Your task to perform on an android device: open a new tab in the chrome app Image 0: 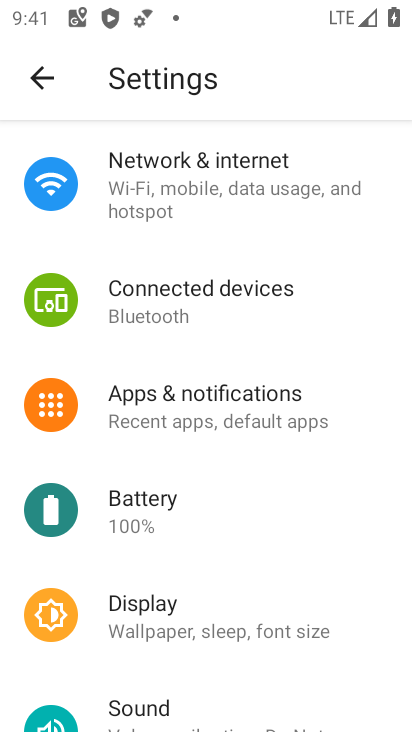
Step 0: press home button
Your task to perform on an android device: open a new tab in the chrome app Image 1: 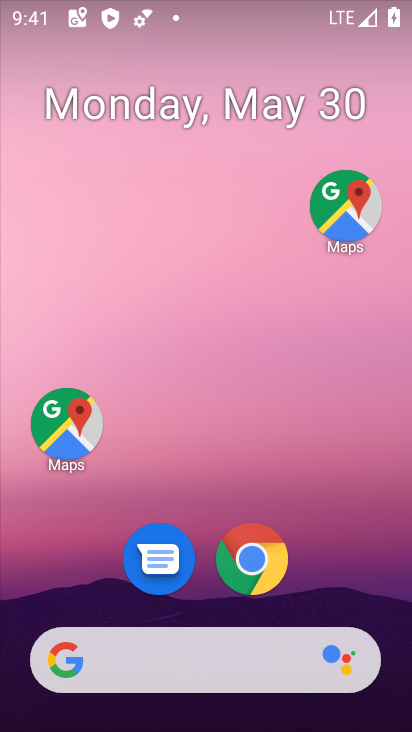
Step 1: click (253, 563)
Your task to perform on an android device: open a new tab in the chrome app Image 2: 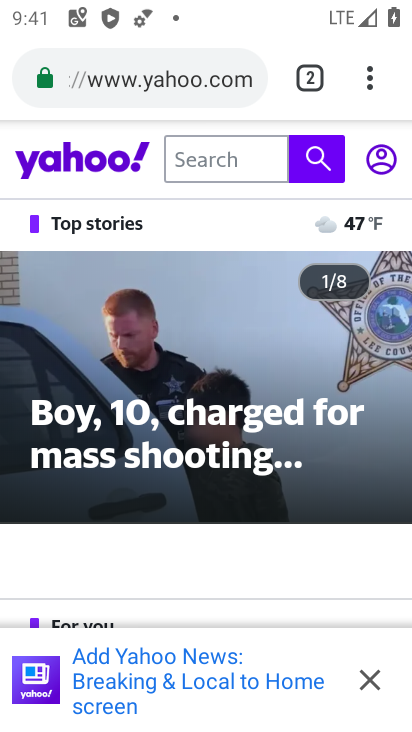
Step 2: task complete